Your task to perform on an android device: Go to battery settings Image 0: 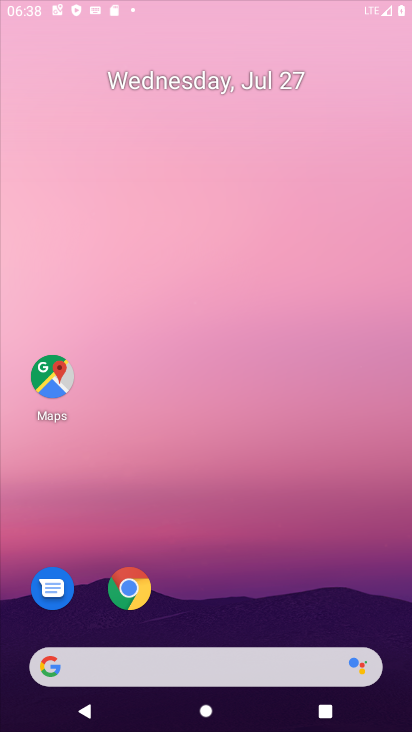
Step 0: drag from (261, 663) to (392, 22)
Your task to perform on an android device: Go to battery settings Image 1: 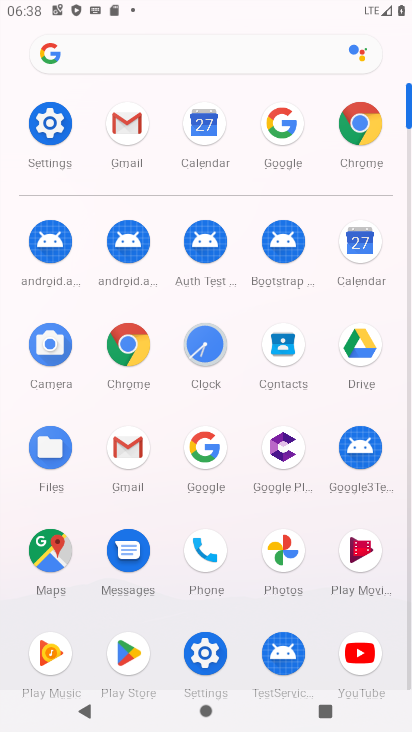
Step 1: click (34, 113)
Your task to perform on an android device: Go to battery settings Image 2: 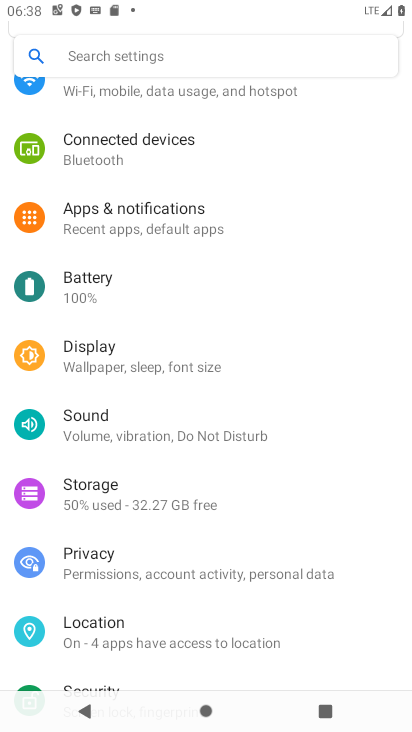
Step 2: click (148, 626)
Your task to perform on an android device: Go to battery settings Image 3: 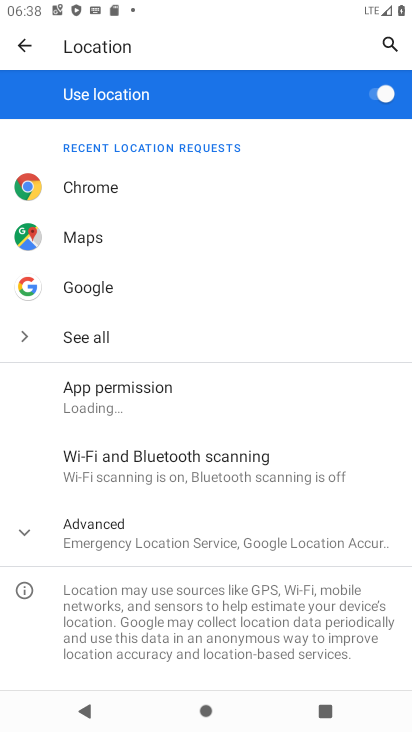
Step 3: press back button
Your task to perform on an android device: Go to battery settings Image 4: 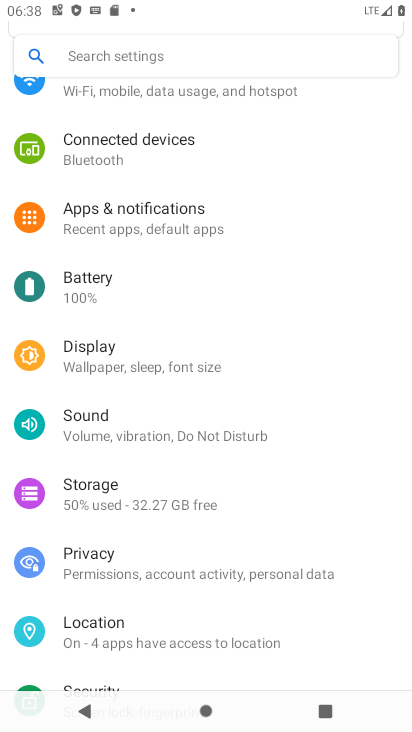
Step 4: click (145, 294)
Your task to perform on an android device: Go to battery settings Image 5: 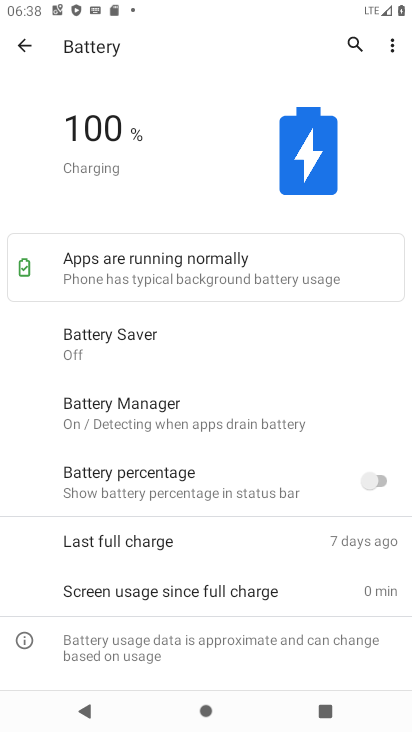
Step 5: task complete